Your task to perform on an android device: Play the last video I watched on Youtube Image 0: 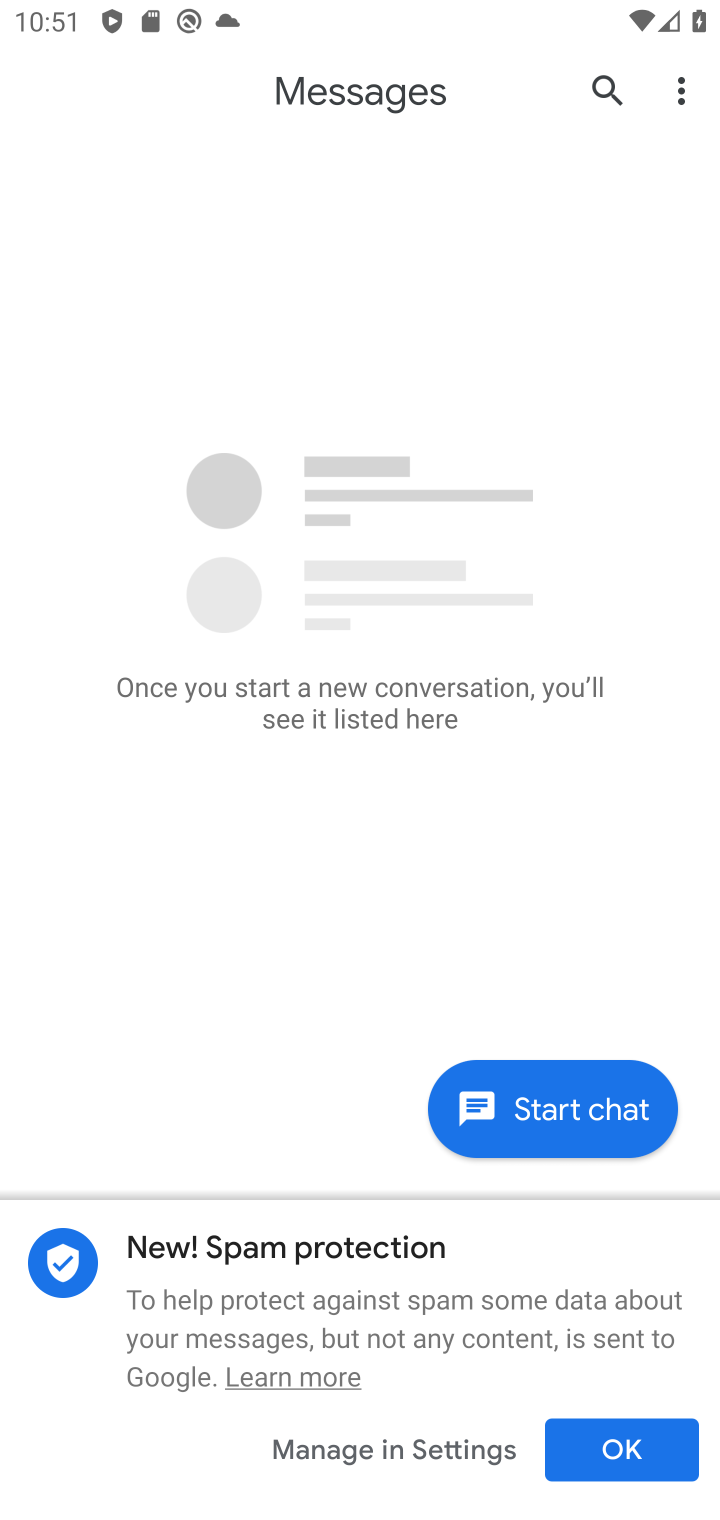
Step 0: press home button
Your task to perform on an android device: Play the last video I watched on Youtube Image 1: 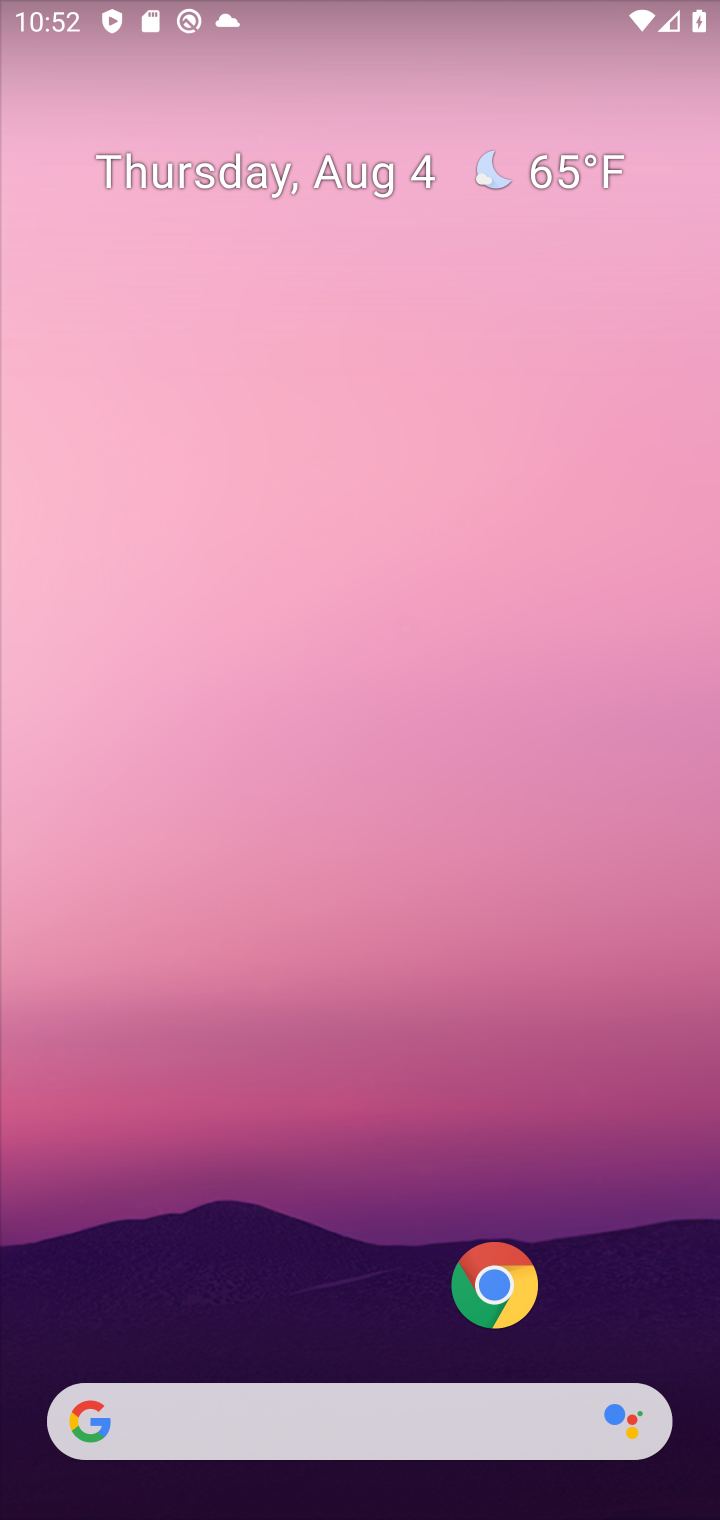
Step 1: drag from (395, 1295) to (393, 38)
Your task to perform on an android device: Play the last video I watched on Youtube Image 2: 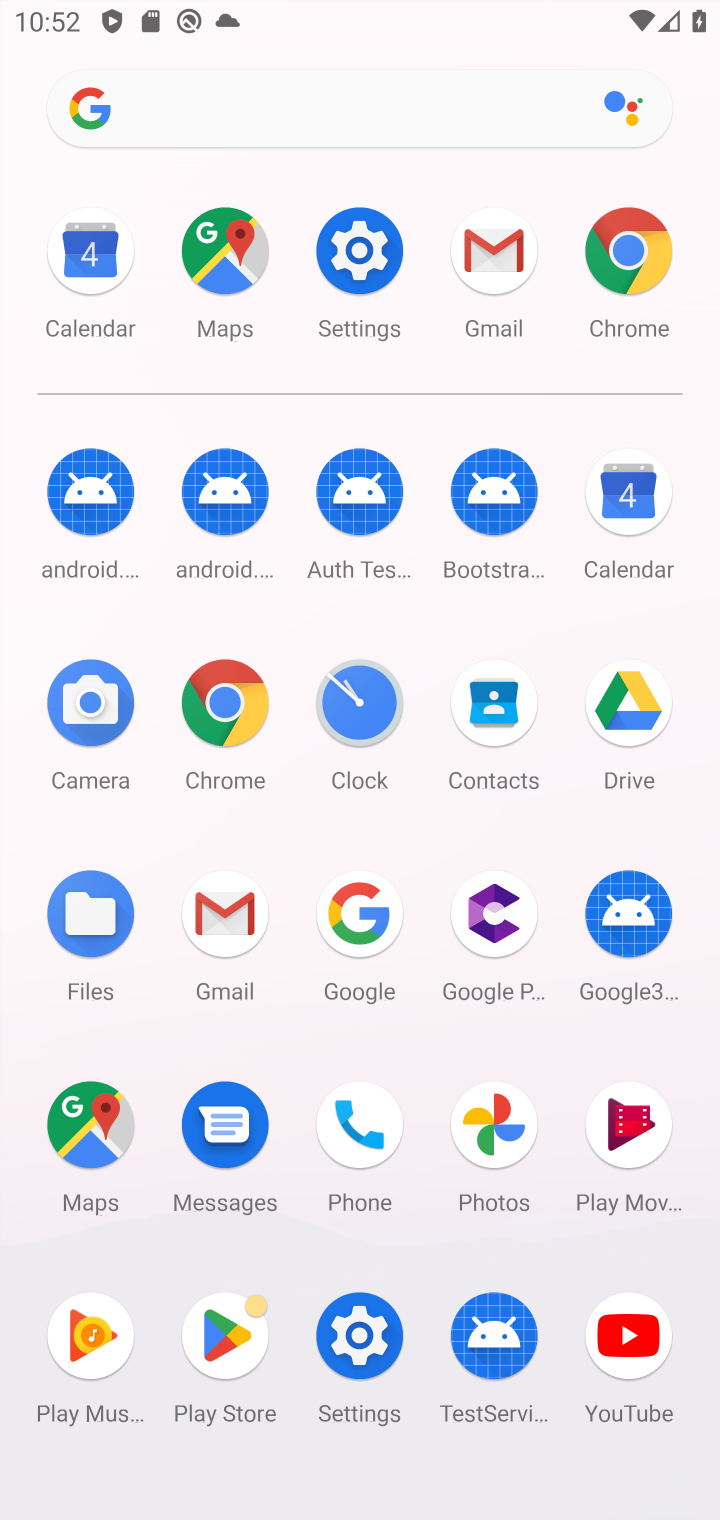
Step 2: click (617, 1324)
Your task to perform on an android device: Play the last video I watched on Youtube Image 3: 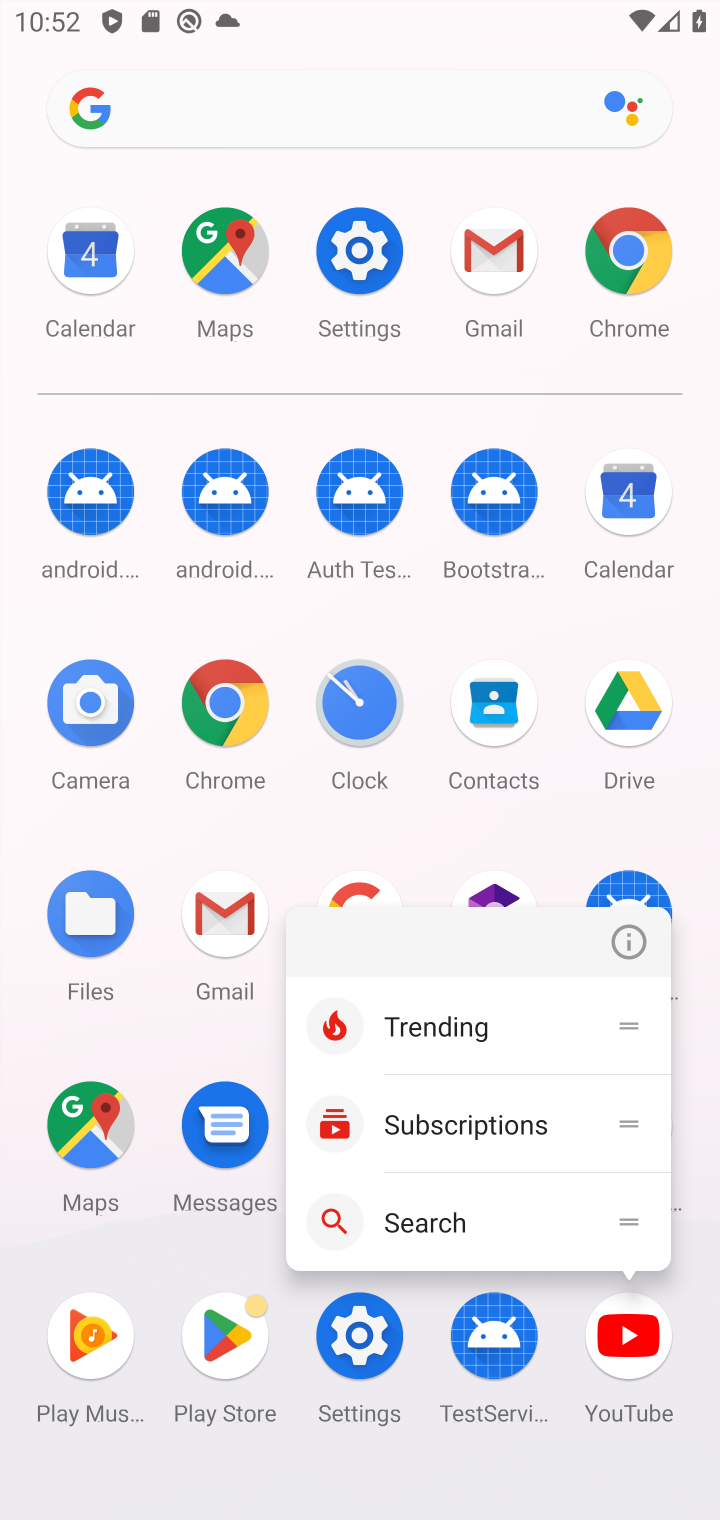
Step 3: click (626, 1349)
Your task to perform on an android device: Play the last video I watched on Youtube Image 4: 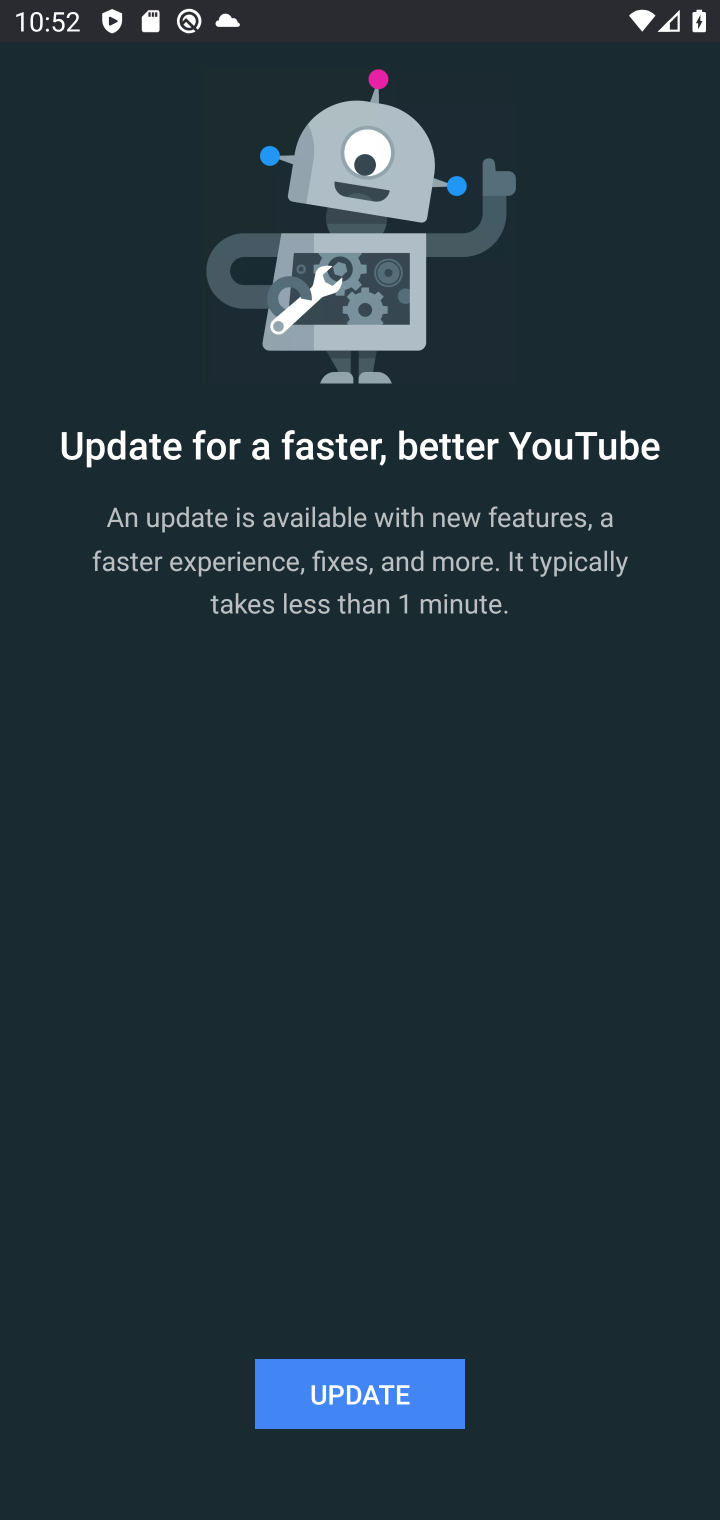
Step 4: press home button
Your task to perform on an android device: Play the last video I watched on Youtube Image 5: 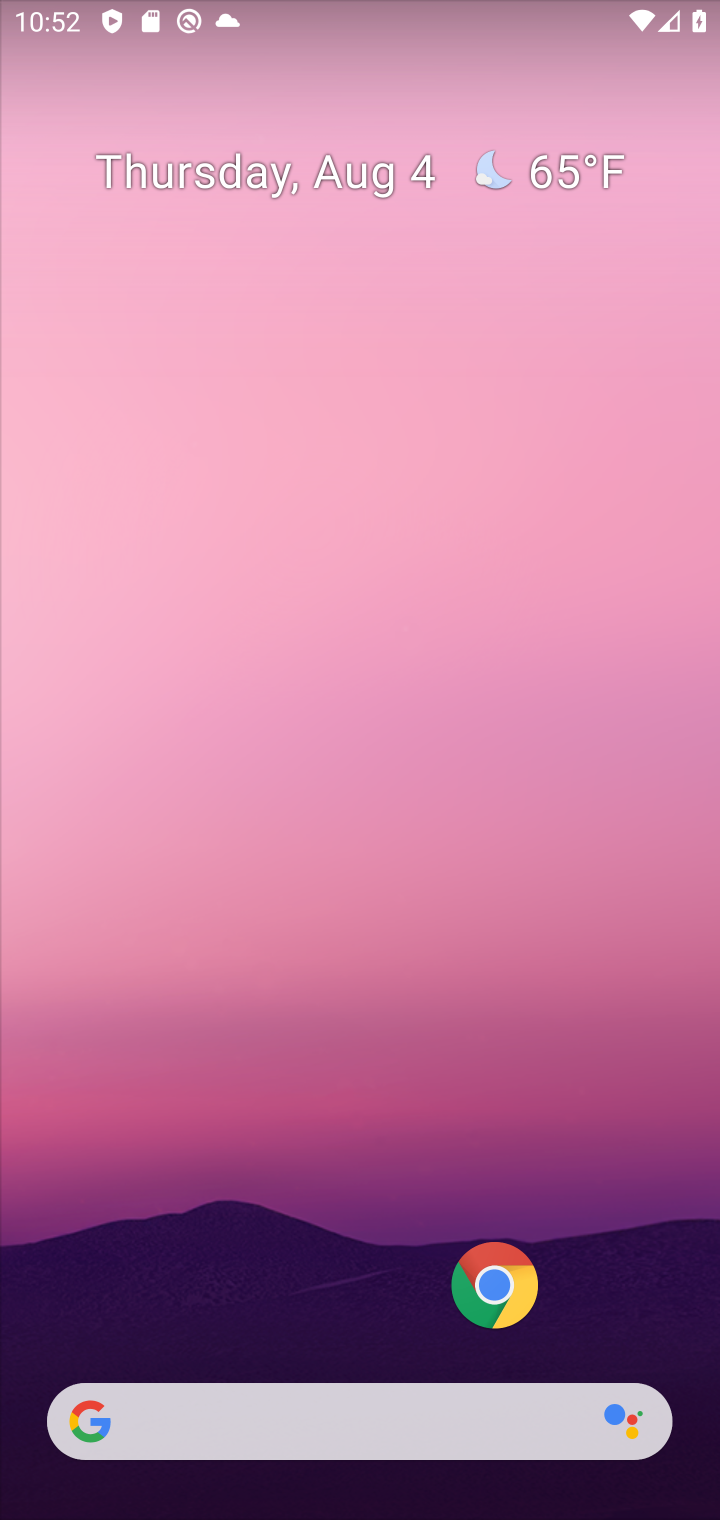
Step 5: drag from (353, 994) to (444, 2)
Your task to perform on an android device: Play the last video I watched on Youtube Image 6: 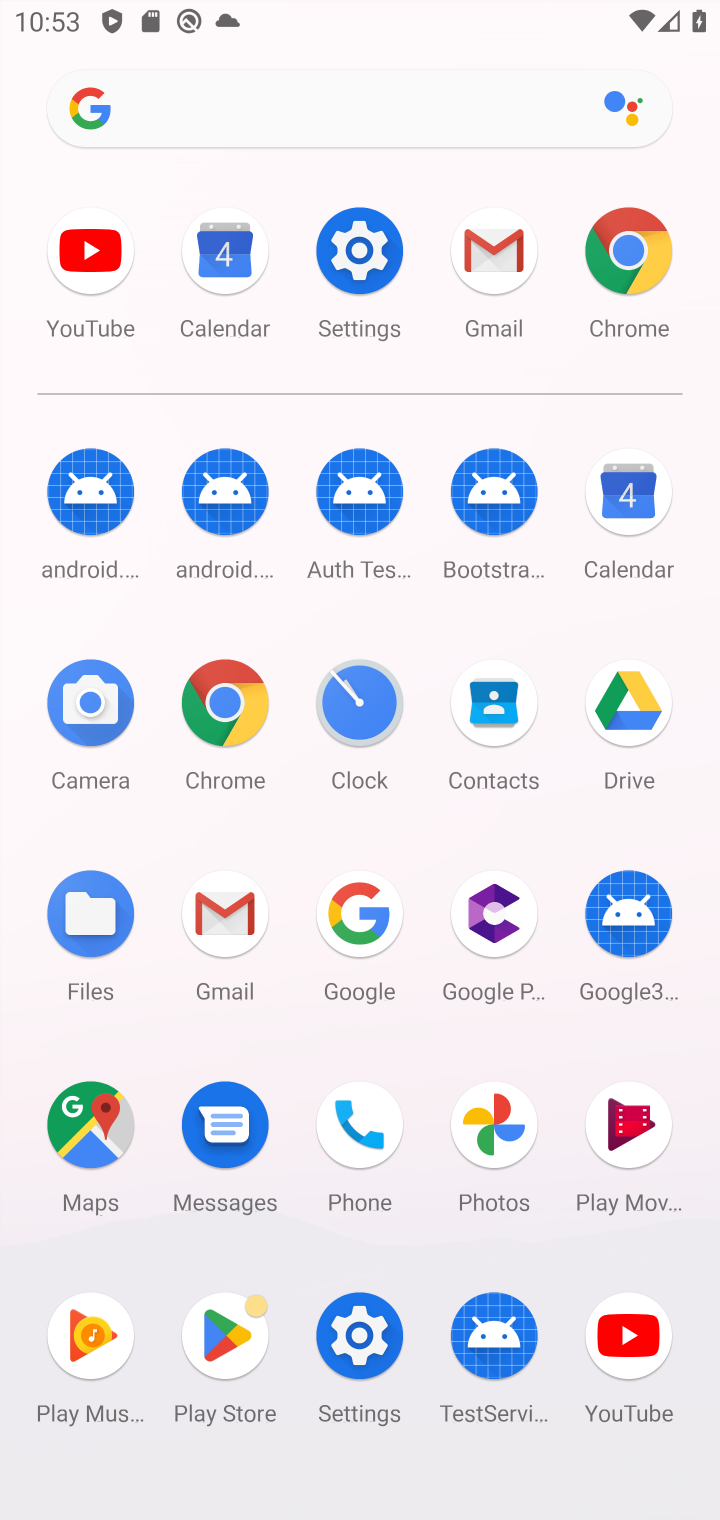
Step 6: click (639, 1326)
Your task to perform on an android device: Play the last video I watched on Youtube Image 7: 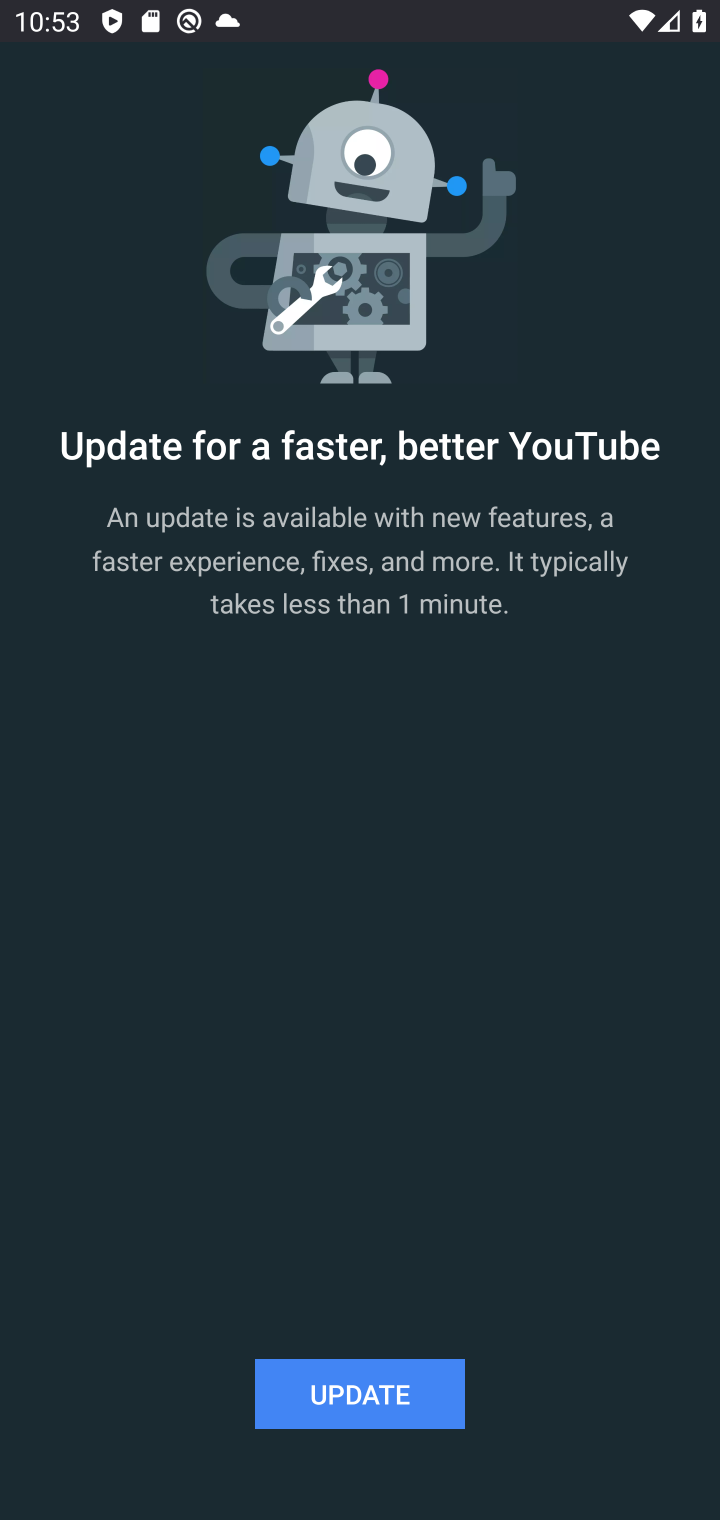
Step 7: click (351, 1411)
Your task to perform on an android device: Play the last video I watched on Youtube Image 8: 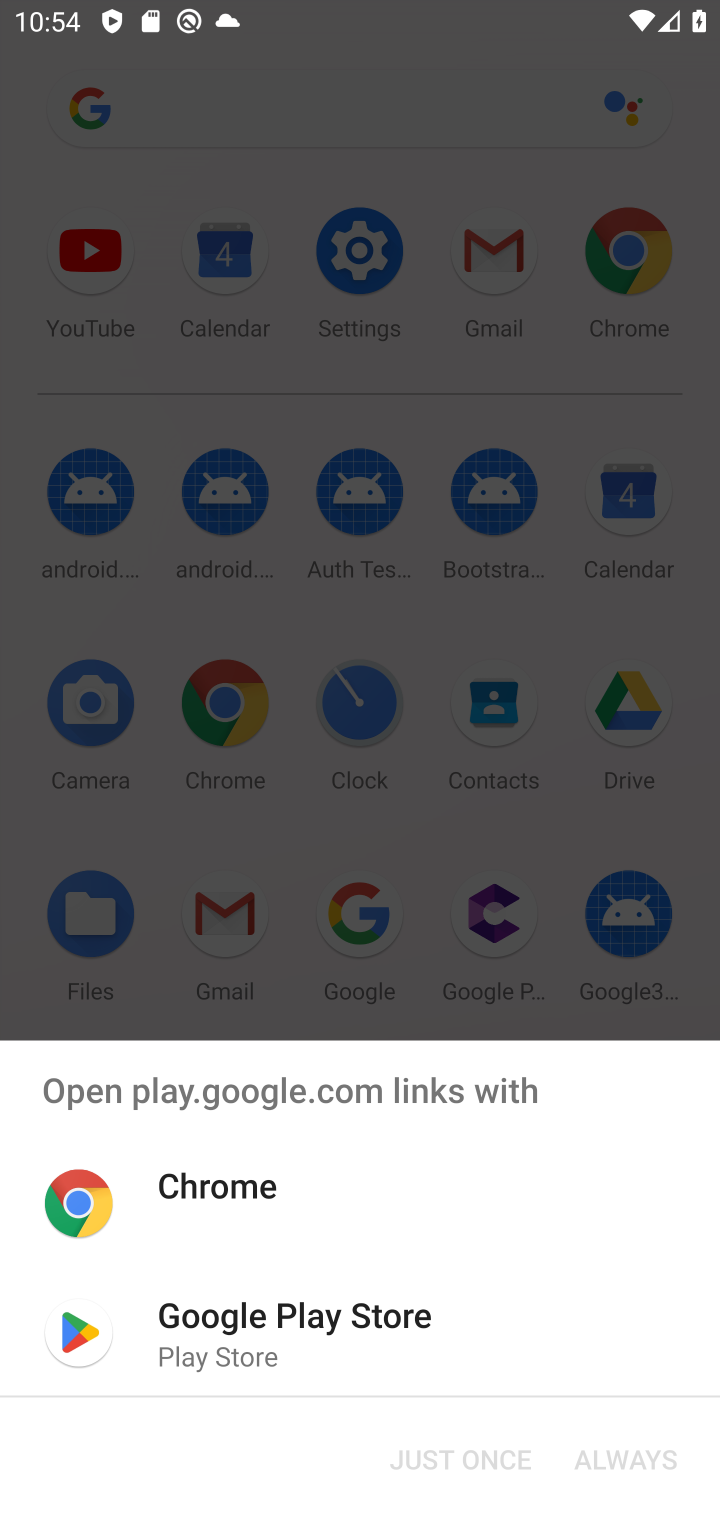
Step 8: click (319, 1307)
Your task to perform on an android device: Play the last video I watched on Youtube Image 9: 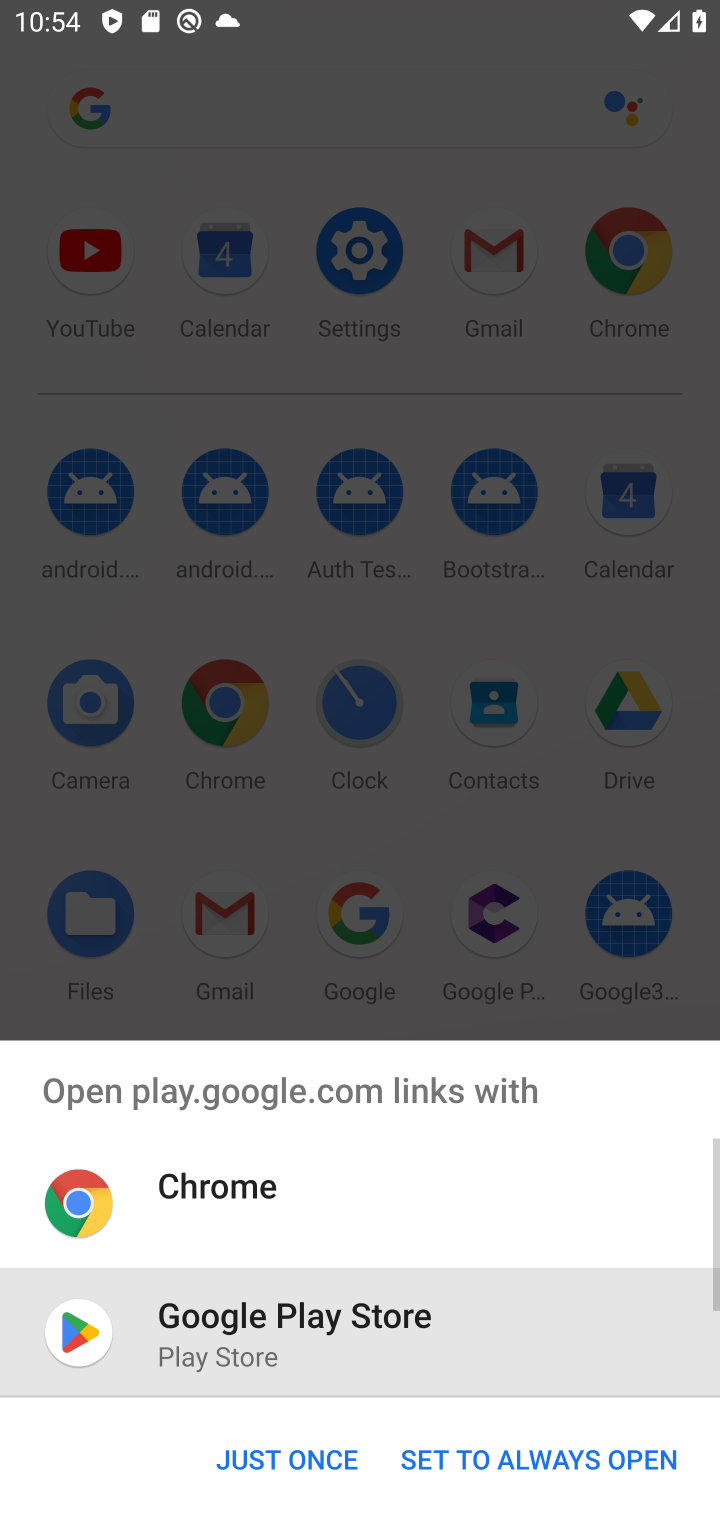
Step 9: click (273, 1461)
Your task to perform on an android device: Play the last video I watched on Youtube Image 10: 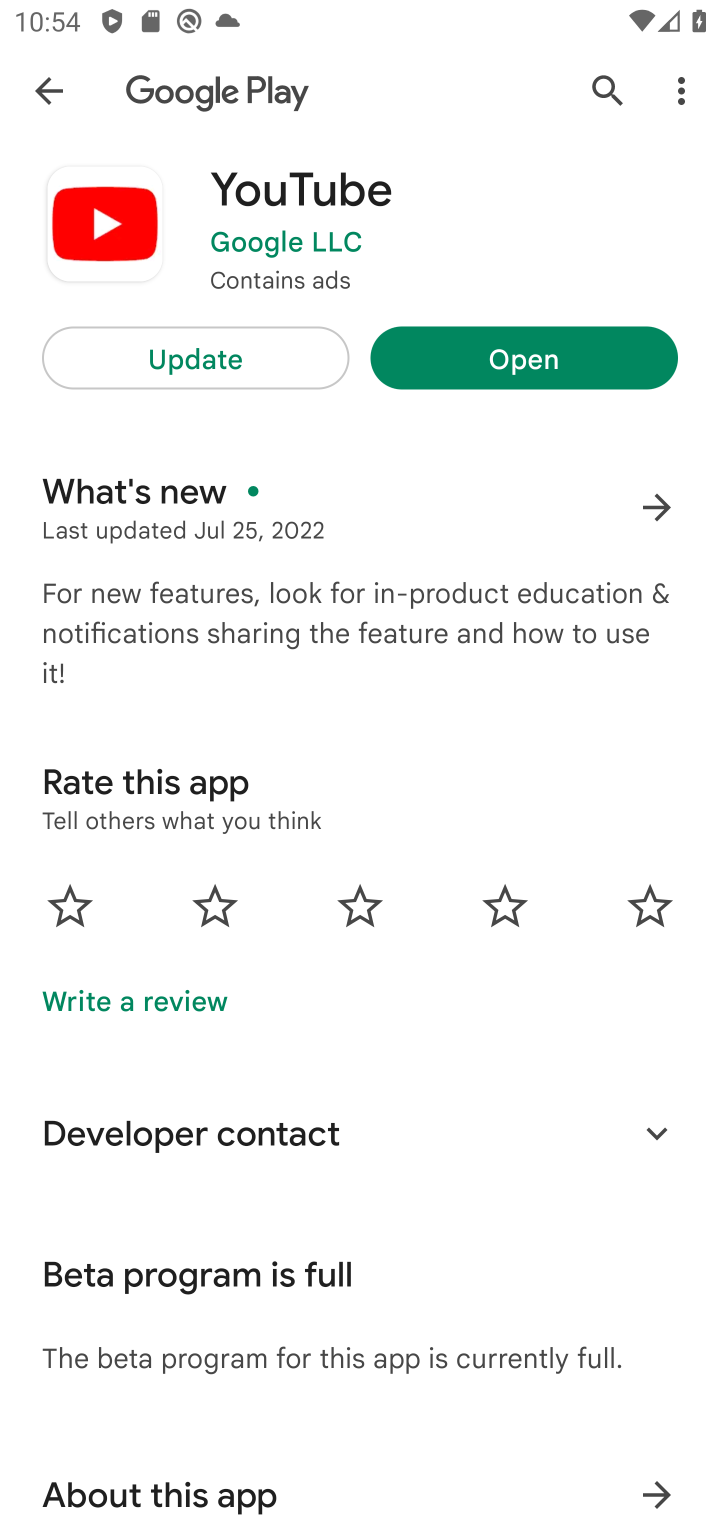
Step 10: click (236, 367)
Your task to perform on an android device: Play the last video I watched on Youtube Image 11: 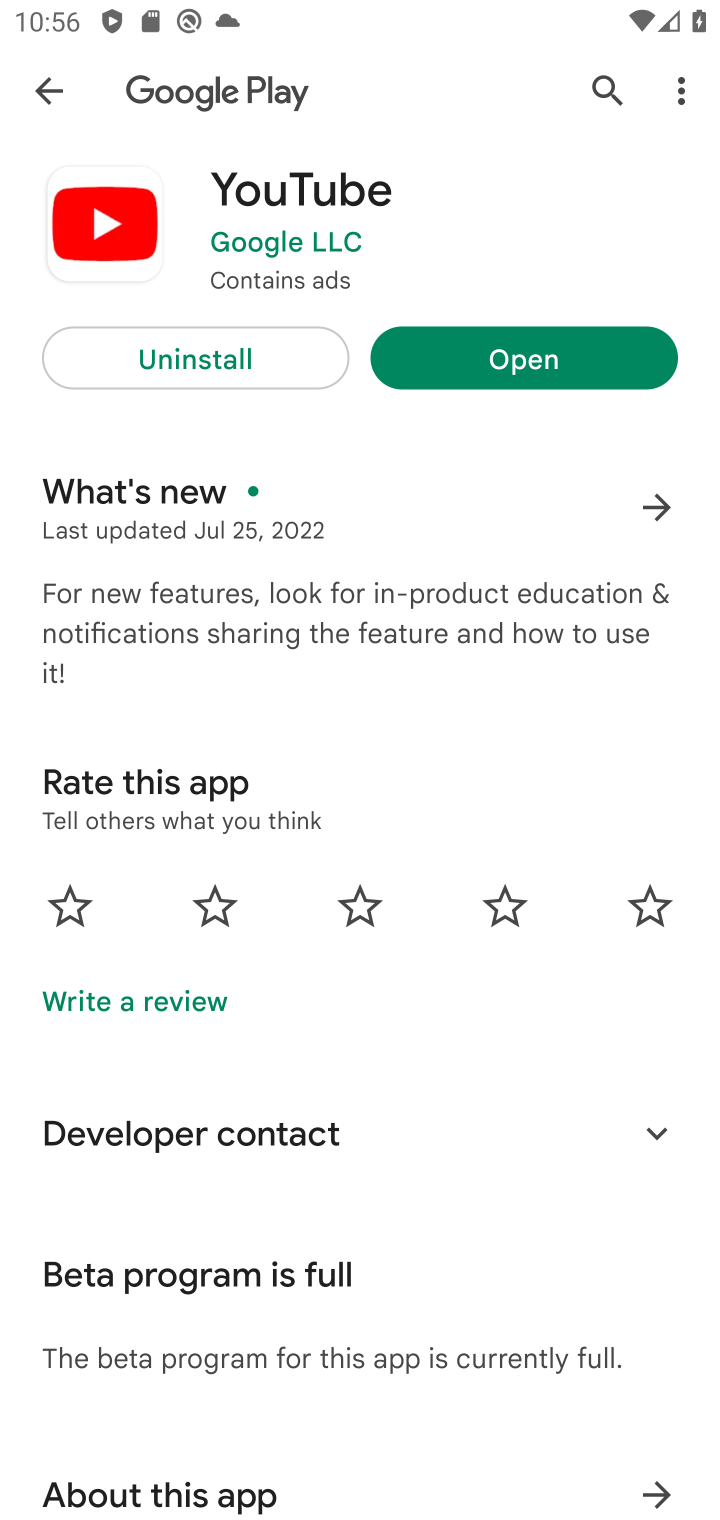
Step 11: click (507, 360)
Your task to perform on an android device: Play the last video I watched on Youtube Image 12: 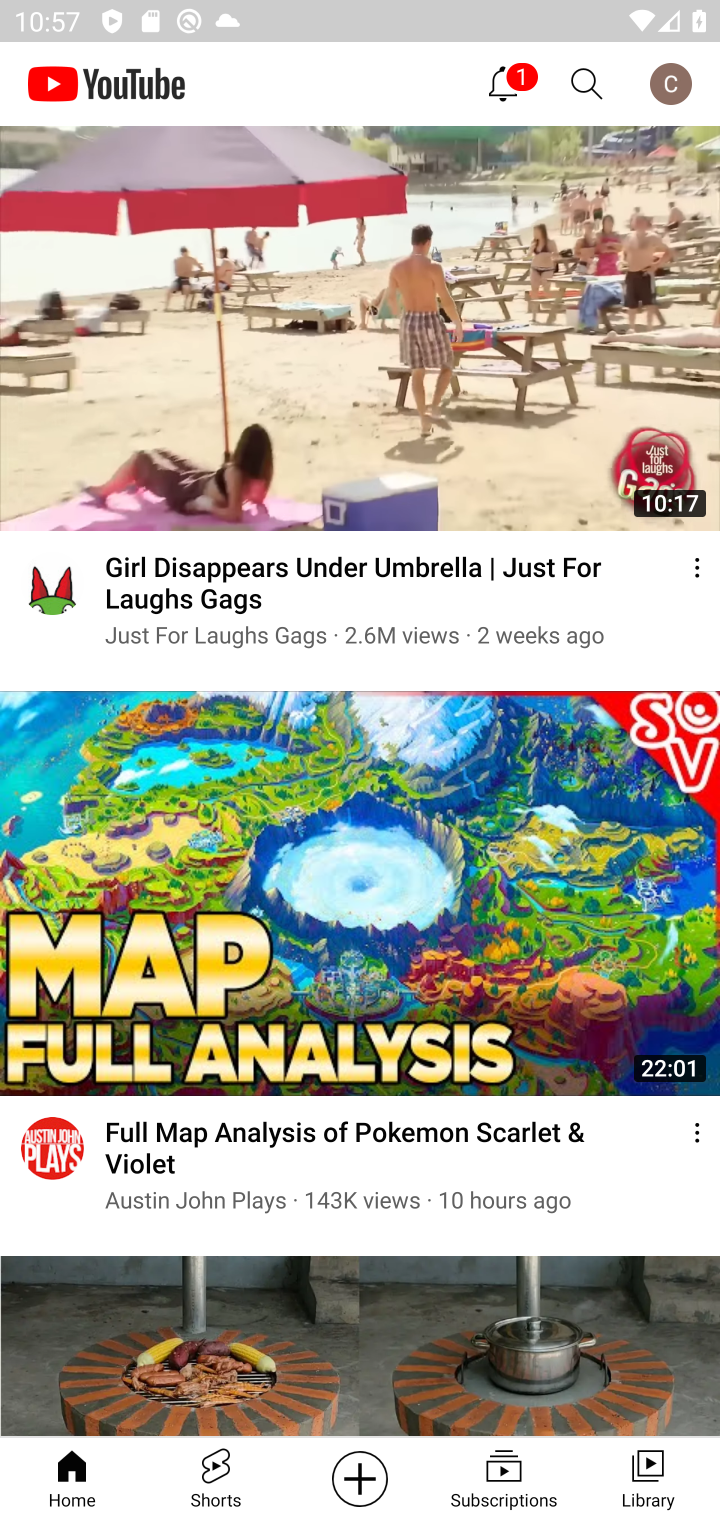
Step 12: click (652, 1470)
Your task to perform on an android device: Play the last video I watched on Youtube Image 13: 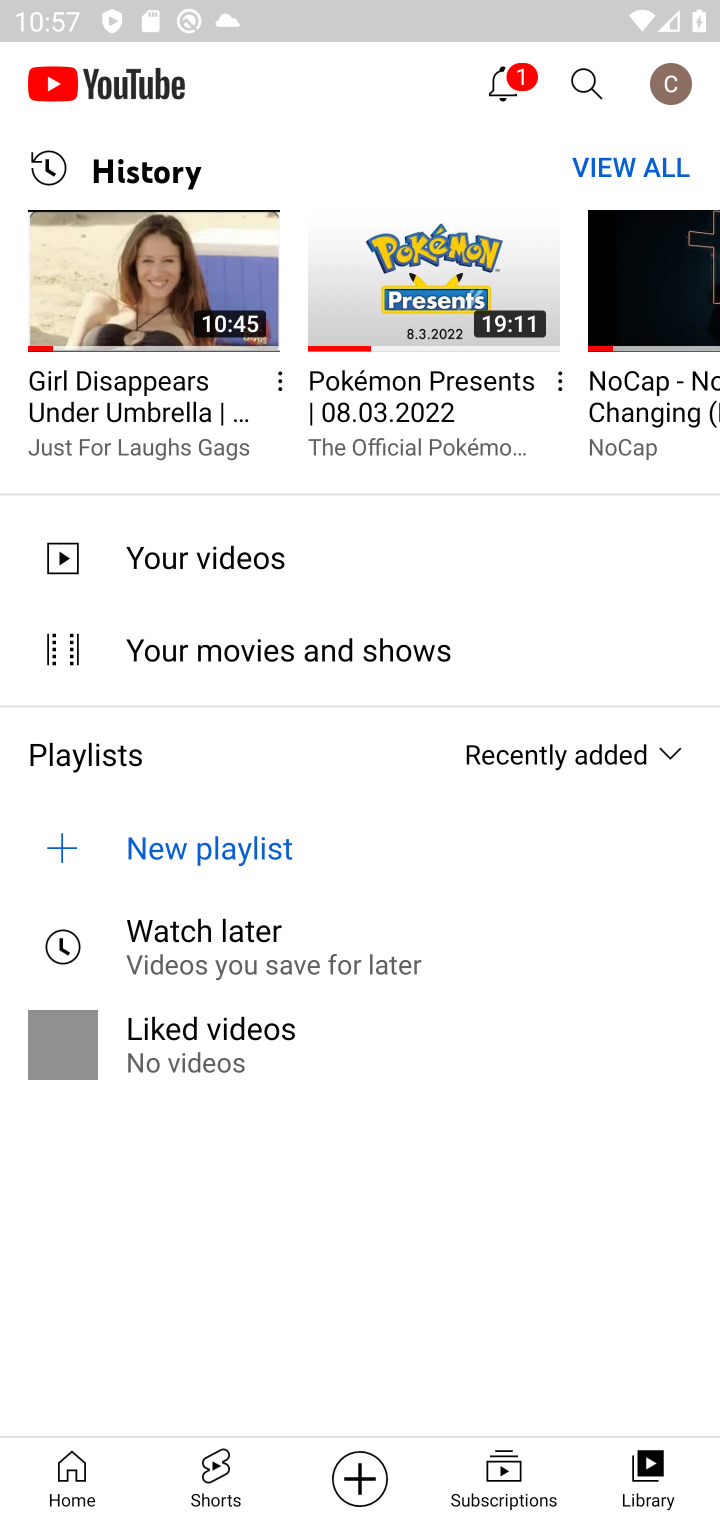
Step 13: click (202, 301)
Your task to perform on an android device: Play the last video I watched on Youtube Image 14: 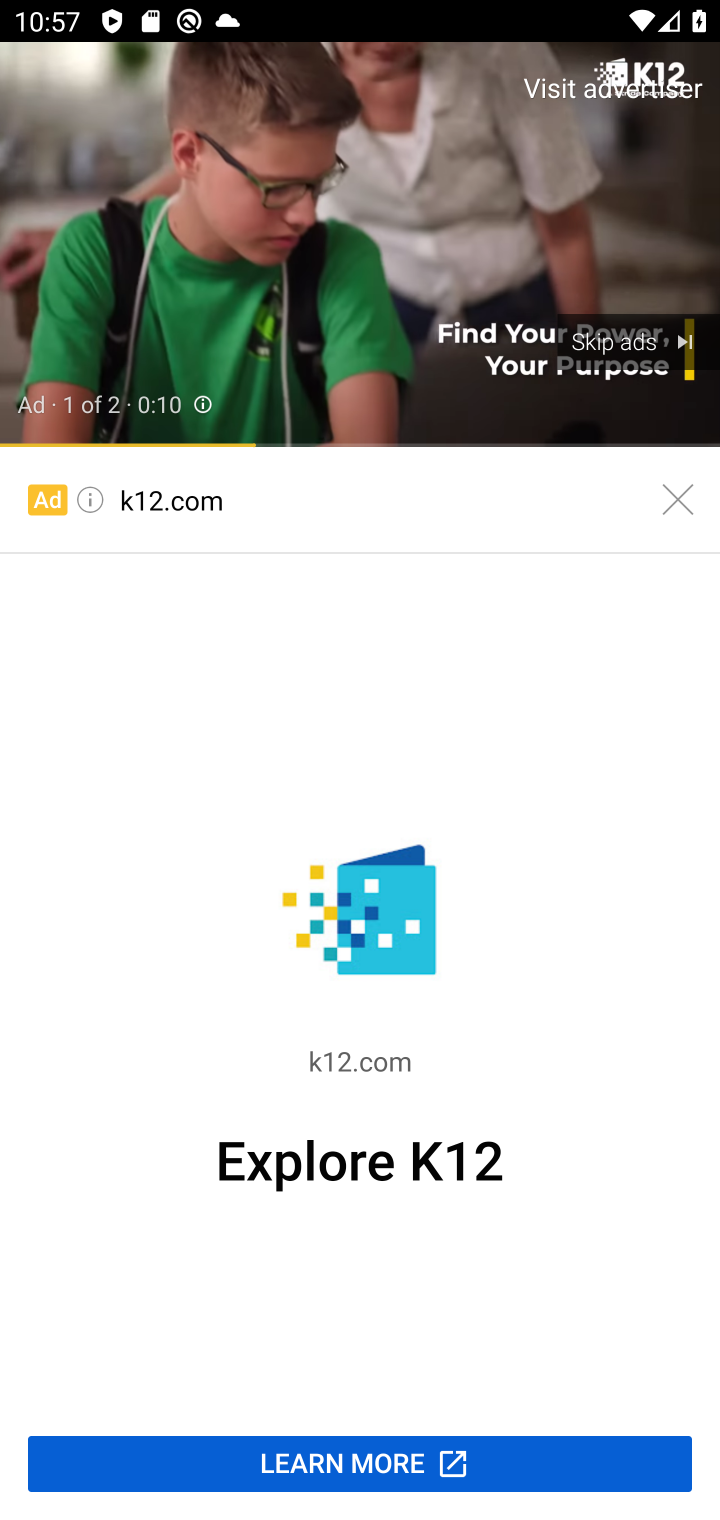
Step 14: task complete